Your task to perform on an android device: turn on wifi Image 0: 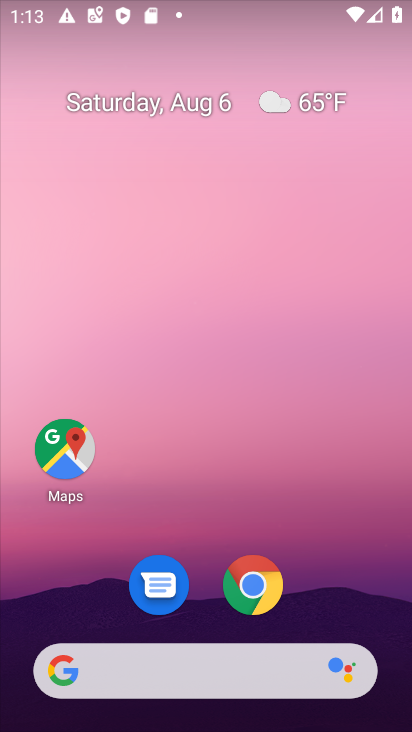
Step 0: drag from (218, 496) to (245, 37)
Your task to perform on an android device: turn on wifi Image 1: 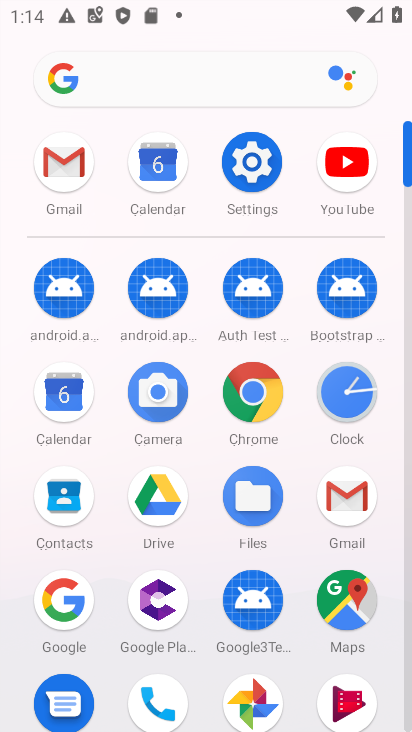
Step 1: click (253, 168)
Your task to perform on an android device: turn on wifi Image 2: 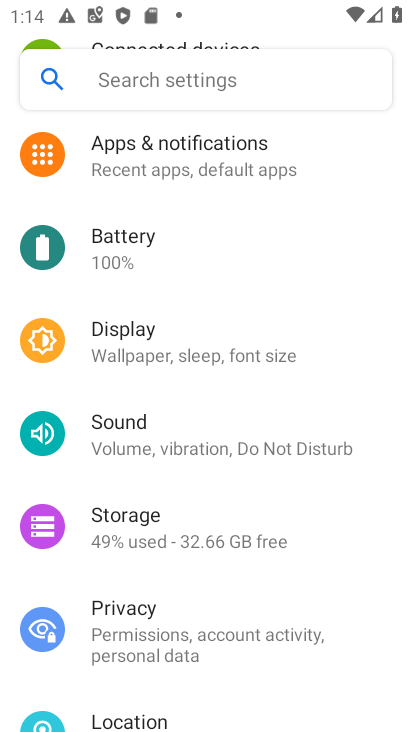
Step 2: drag from (242, 220) to (255, 489)
Your task to perform on an android device: turn on wifi Image 3: 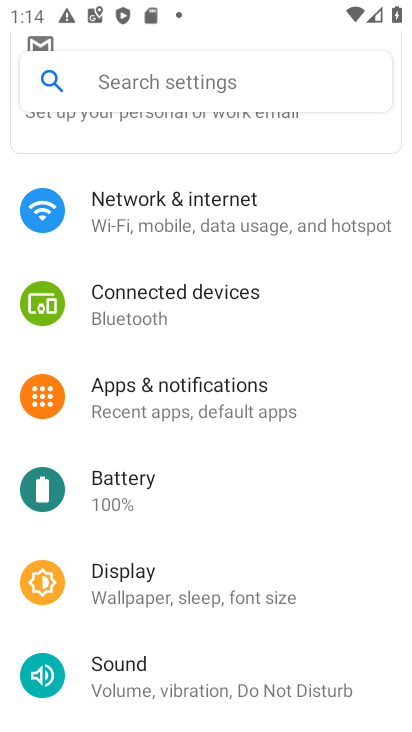
Step 3: click (232, 216)
Your task to perform on an android device: turn on wifi Image 4: 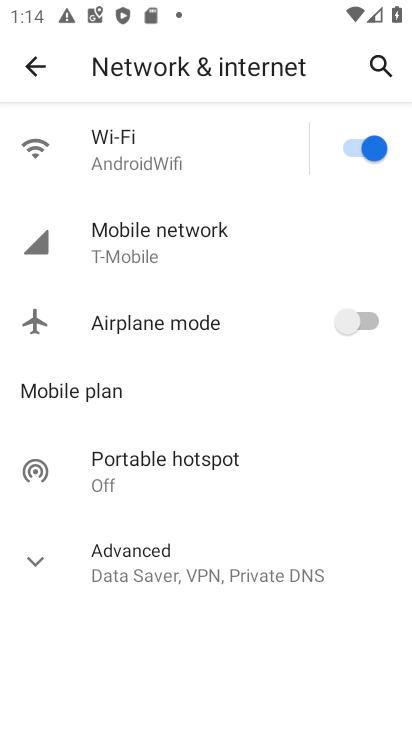
Step 4: task complete